Your task to perform on an android device: Open Yahoo.com Image 0: 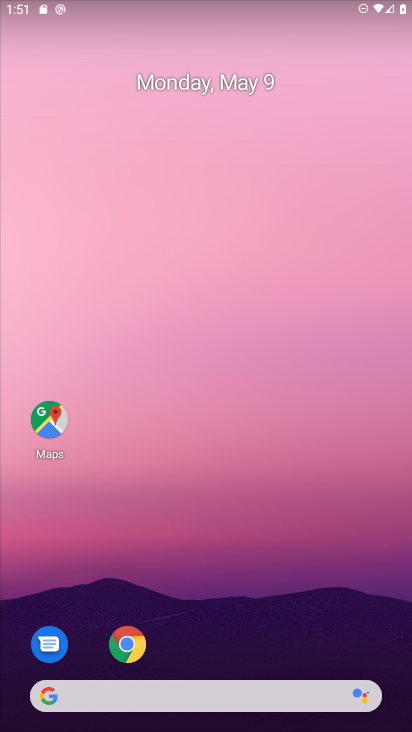
Step 0: drag from (278, 339) to (266, 197)
Your task to perform on an android device: Open Yahoo.com Image 1: 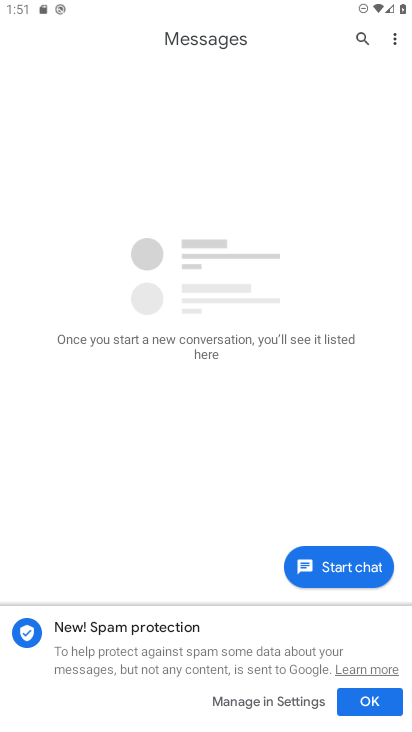
Step 1: press home button
Your task to perform on an android device: Open Yahoo.com Image 2: 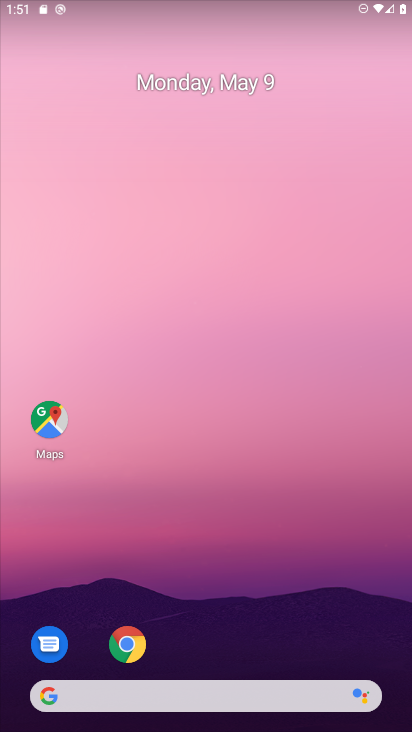
Step 2: click (135, 661)
Your task to perform on an android device: Open Yahoo.com Image 3: 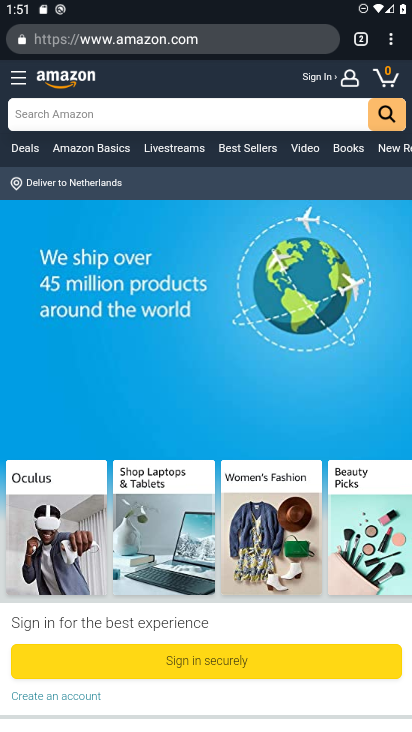
Step 3: click (397, 41)
Your task to perform on an android device: Open Yahoo.com Image 4: 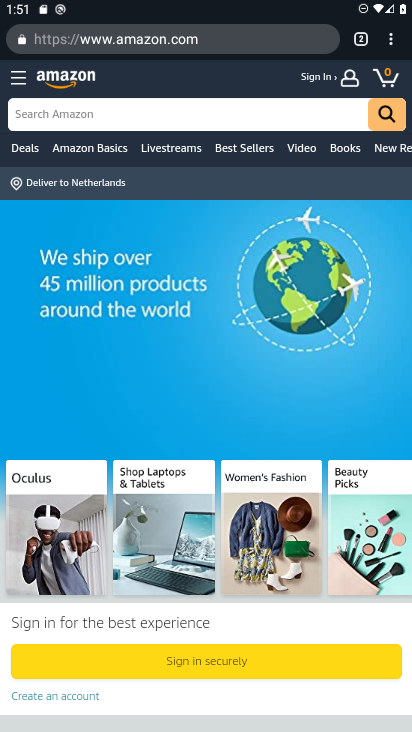
Step 4: click (394, 42)
Your task to perform on an android device: Open Yahoo.com Image 5: 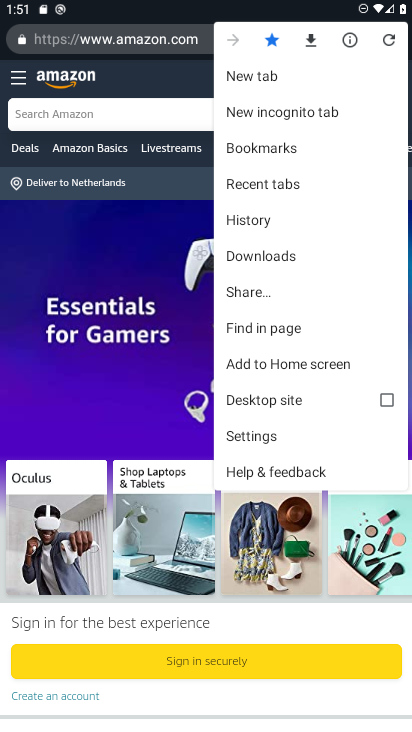
Step 5: click (272, 77)
Your task to perform on an android device: Open Yahoo.com Image 6: 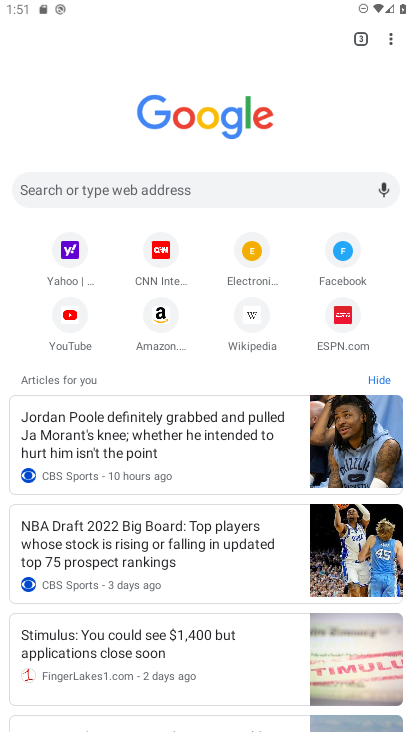
Step 6: click (76, 259)
Your task to perform on an android device: Open Yahoo.com Image 7: 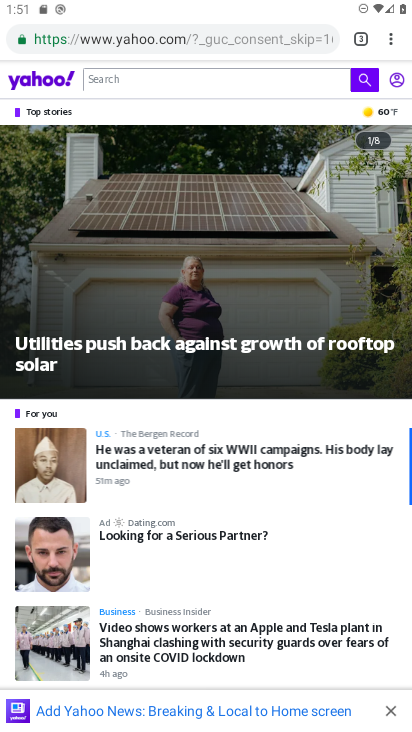
Step 7: task complete